Your task to perform on an android device: turn smart compose on in the gmail app Image 0: 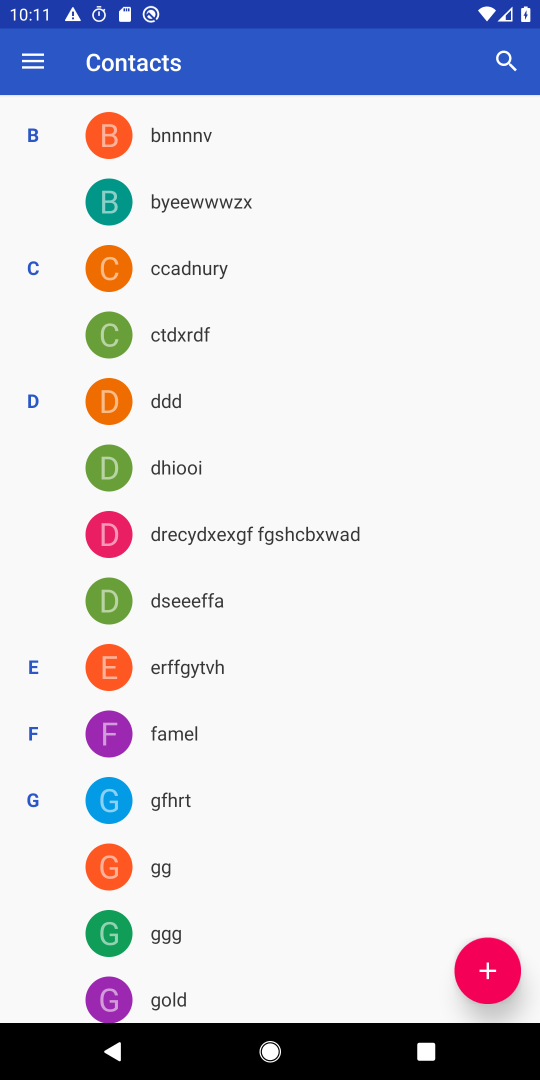
Step 0: press home button
Your task to perform on an android device: turn smart compose on in the gmail app Image 1: 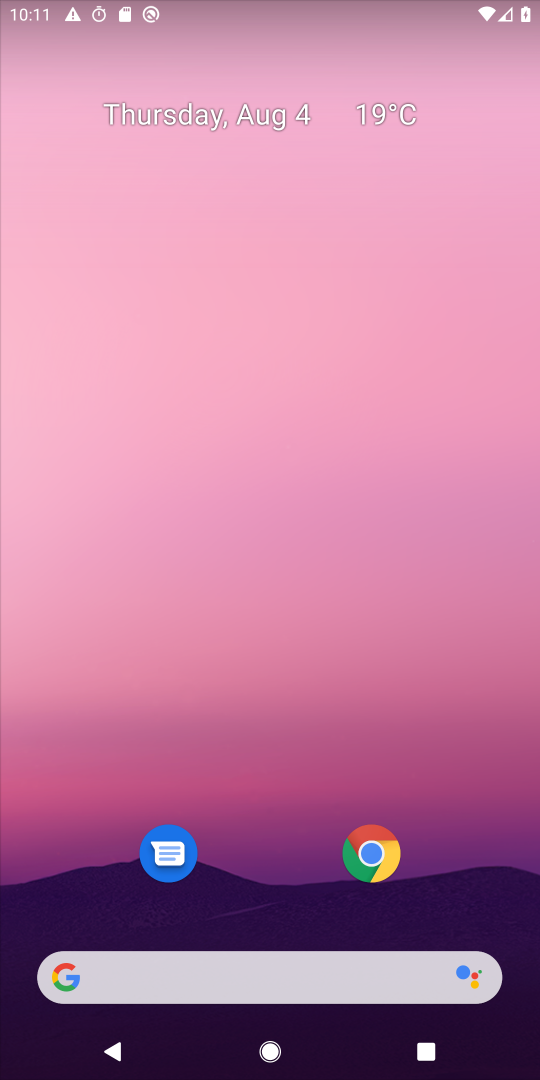
Step 1: drag from (270, 677) to (525, 7)
Your task to perform on an android device: turn smart compose on in the gmail app Image 2: 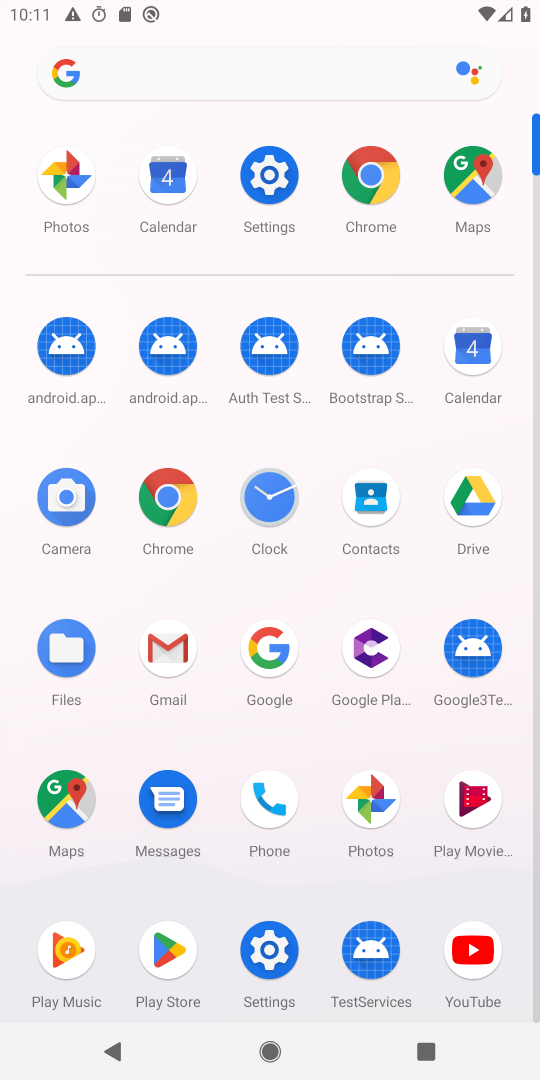
Step 2: click (161, 649)
Your task to perform on an android device: turn smart compose on in the gmail app Image 3: 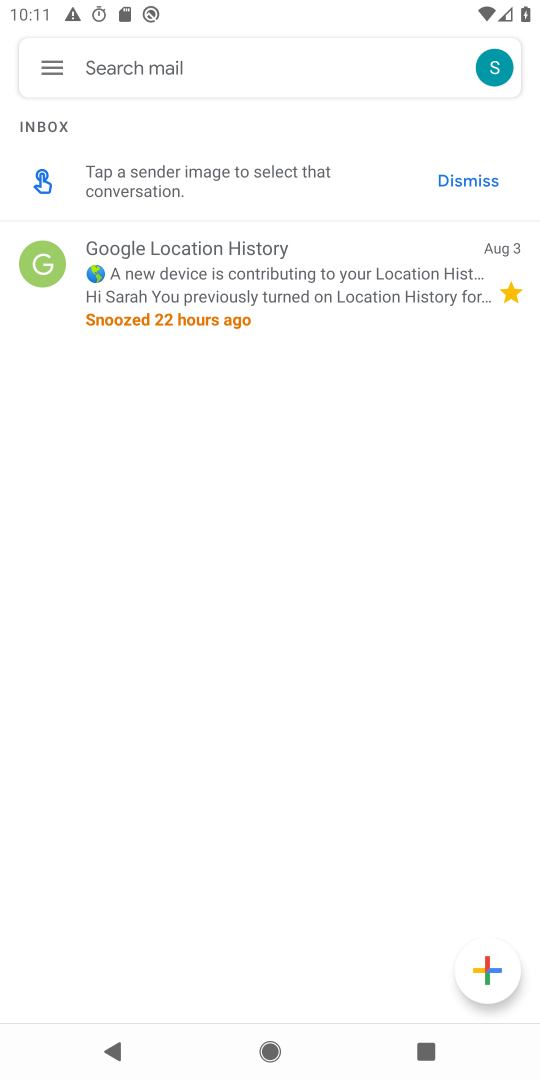
Step 3: click (49, 65)
Your task to perform on an android device: turn smart compose on in the gmail app Image 4: 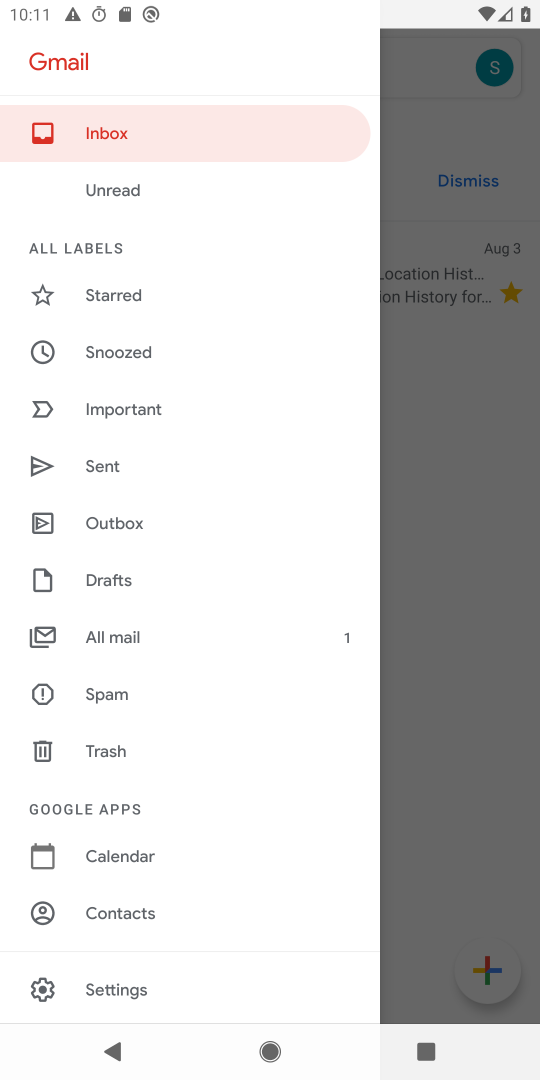
Step 4: drag from (61, 814) to (120, 188)
Your task to perform on an android device: turn smart compose on in the gmail app Image 5: 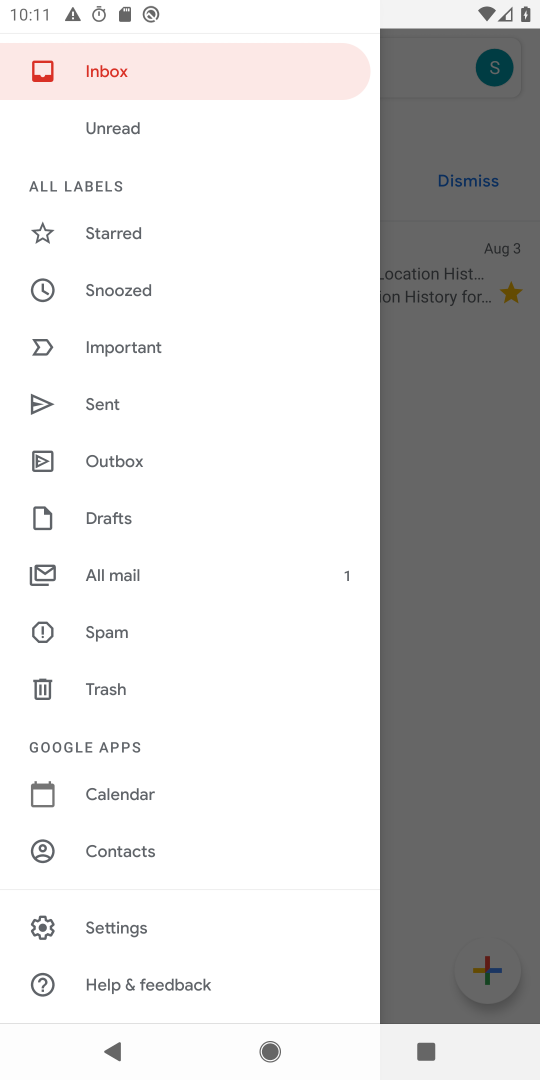
Step 5: click (125, 940)
Your task to perform on an android device: turn smart compose on in the gmail app Image 6: 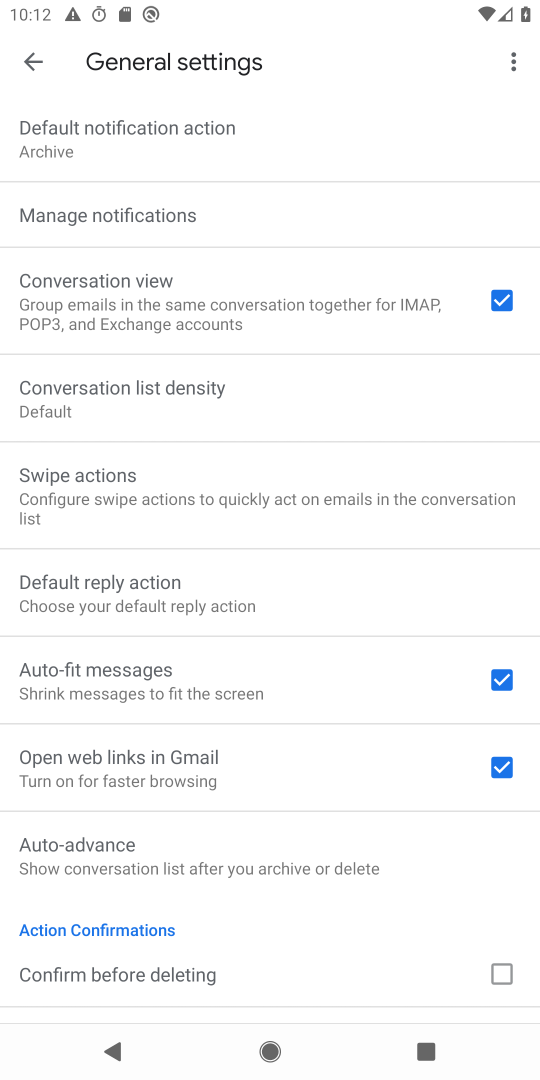
Step 6: drag from (197, 792) to (204, 309)
Your task to perform on an android device: turn smart compose on in the gmail app Image 7: 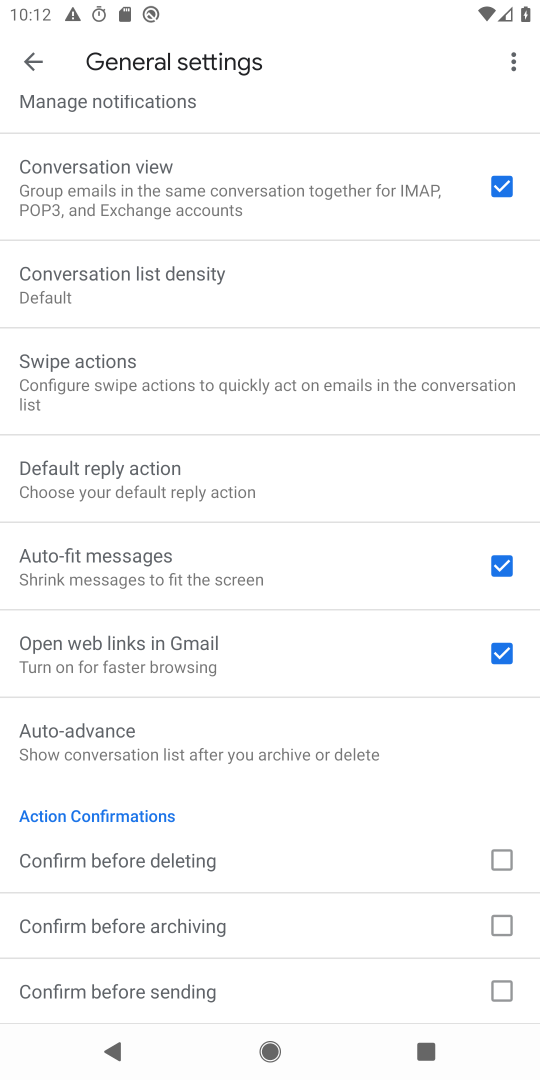
Step 7: drag from (212, 801) to (232, 664)
Your task to perform on an android device: turn smart compose on in the gmail app Image 8: 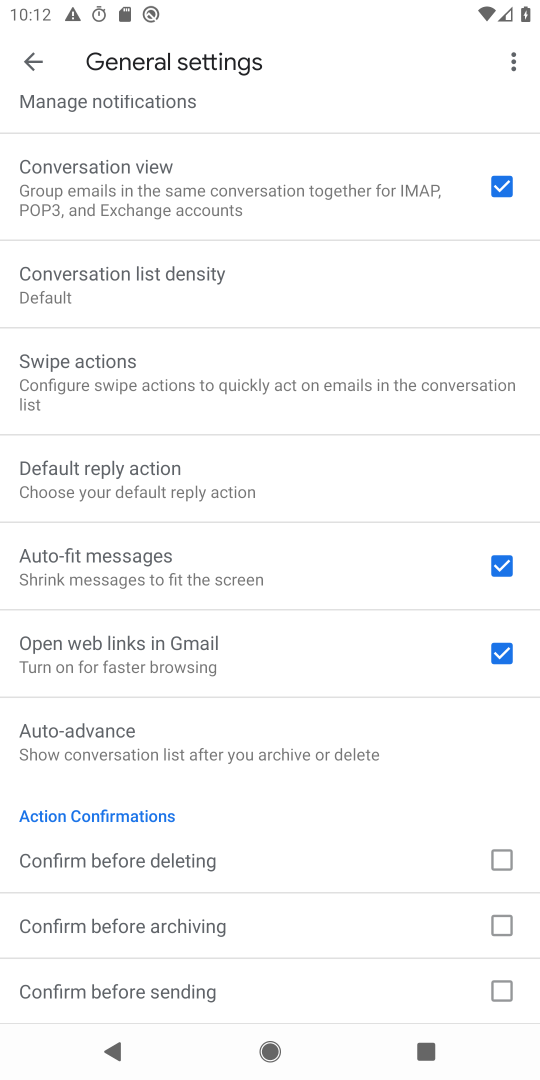
Step 8: click (37, 53)
Your task to perform on an android device: turn smart compose on in the gmail app Image 9: 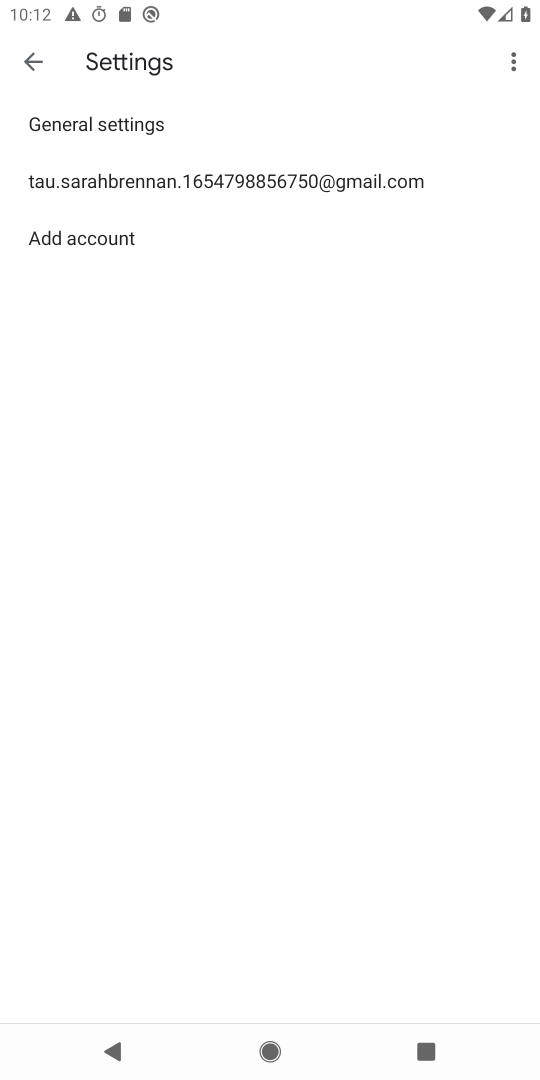
Step 9: click (202, 174)
Your task to perform on an android device: turn smart compose on in the gmail app Image 10: 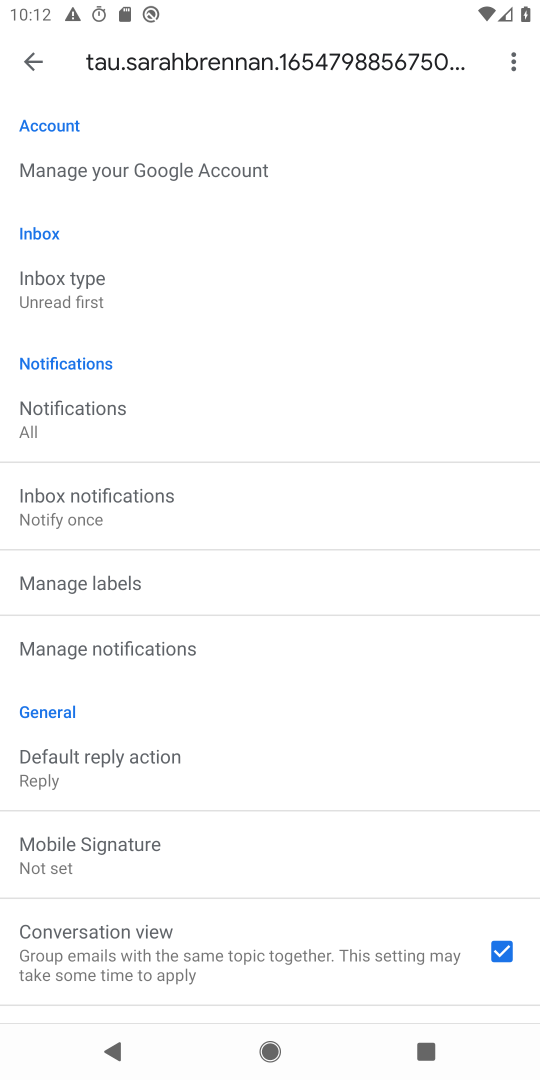
Step 10: task complete